Your task to perform on an android device: clear all cookies in the chrome app Image 0: 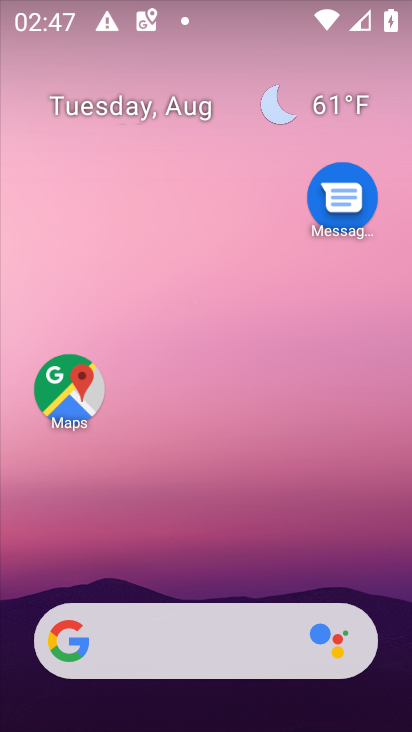
Step 0: drag from (298, 592) to (180, 140)
Your task to perform on an android device: clear all cookies in the chrome app Image 1: 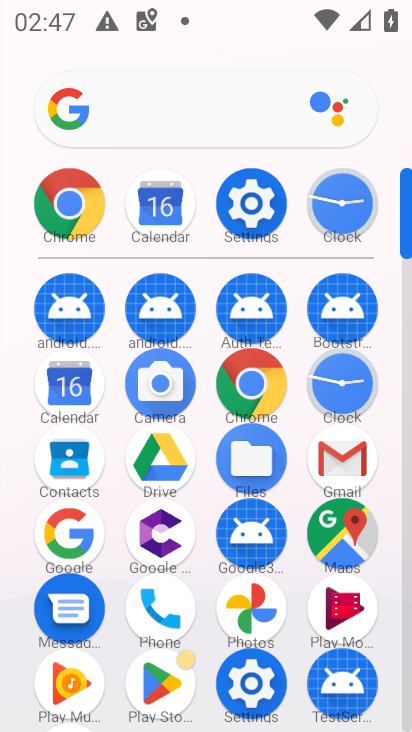
Step 1: click (254, 405)
Your task to perform on an android device: clear all cookies in the chrome app Image 2: 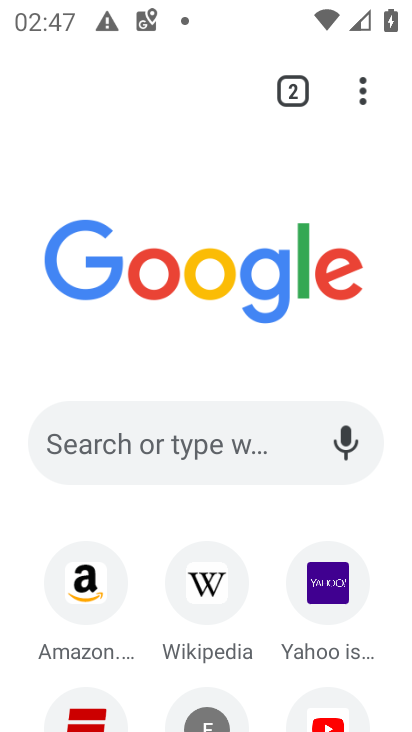
Step 2: click (355, 111)
Your task to perform on an android device: clear all cookies in the chrome app Image 3: 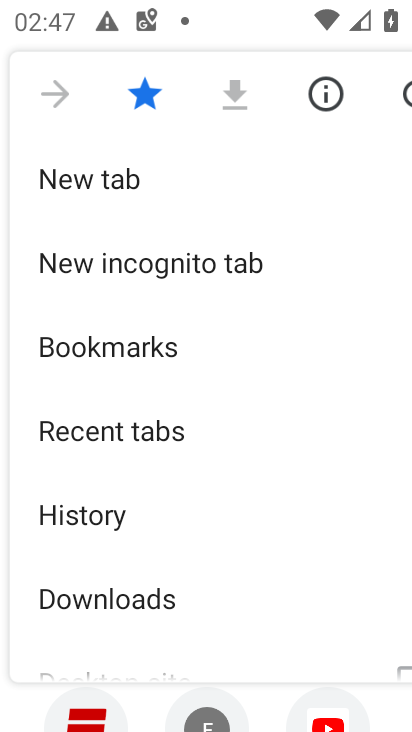
Step 3: drag from (232, 496) to (249, 249)
Your task to perform on an android device: clear all cookies in the chrome app Image 4: 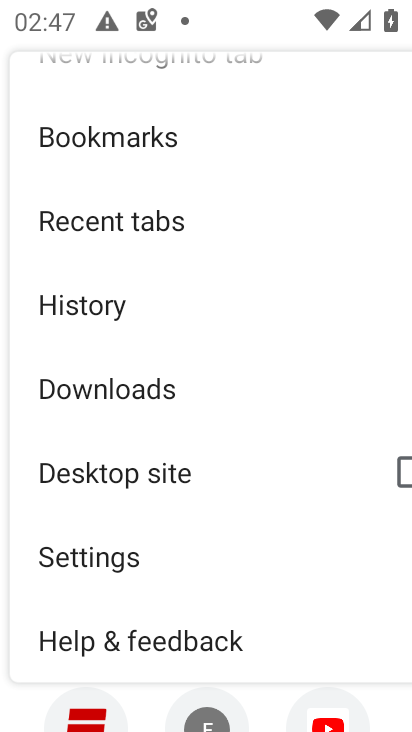
Step 4: click (182, 335)
Your task to perform on an android device: clear all cookies in the chrome app Image 5: 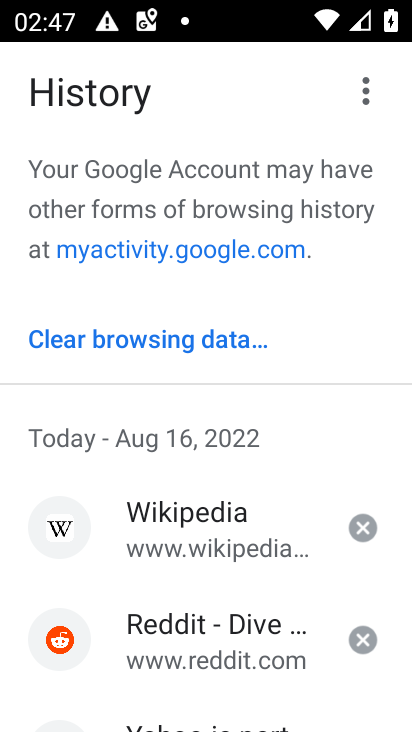
Step 5: click (204, 363)
Your task to perform on an android device: clear all cookies in the chrome app Image 6: 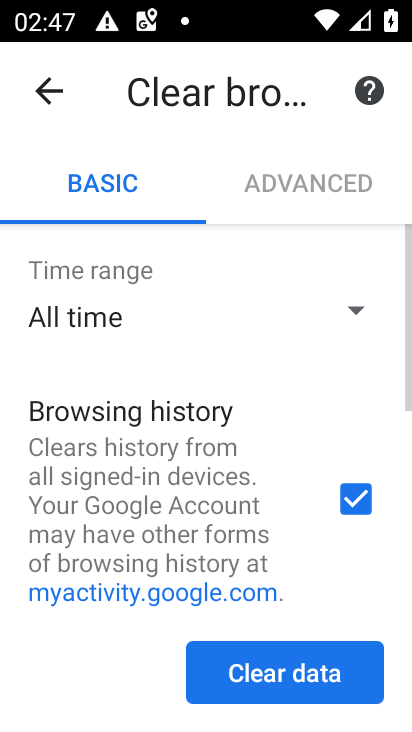
Step 6: drag from (245, 589) to (236, 288)
Your task to perform on an android device: clear all cookies in the chrome app Image 7: 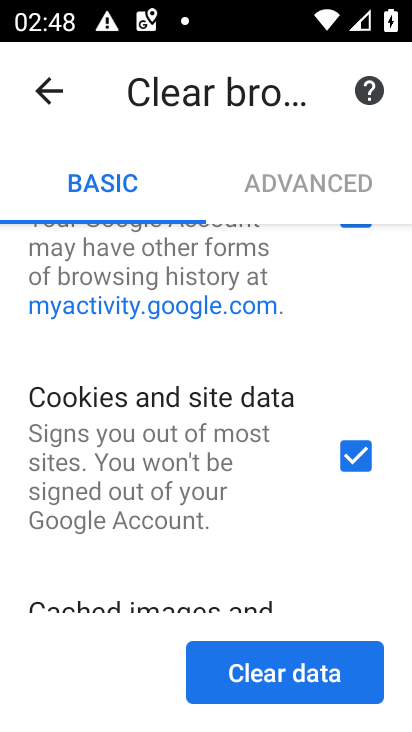
Step 7: click (333, 249)
Your task to perform on an android device: clear all cookies in the chrome app Image 8: 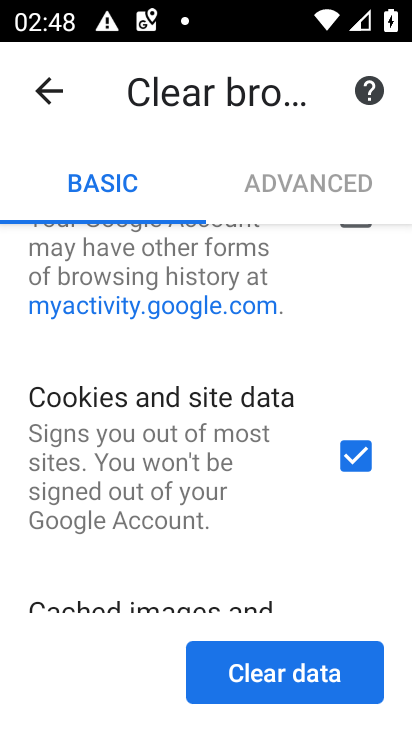
Step 8: click (329, 668)
Your task to perform on an android device: clear all cookies in the chrome app Image 9: 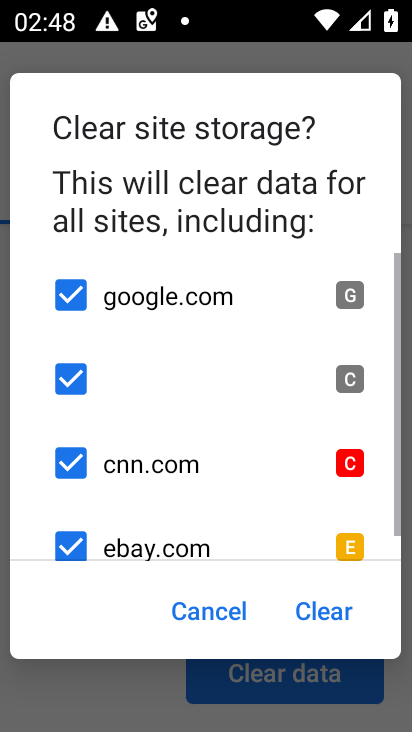
Step 9: task complete